Your task to perform on an android device: Search for seafood restaurants on Google Maps Image 0: 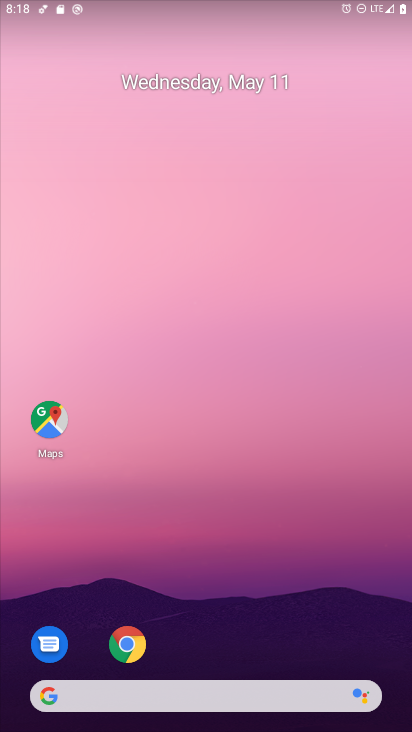
Step 0: click (53, 424)
Your task to perform on an android device: Search for seafood restaurants on Google Maps Image 1: 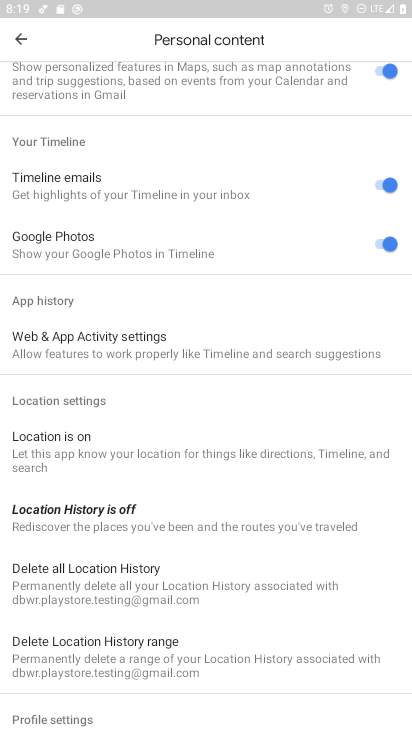
Step 1: click (24, 44)
Your task to perform on an android device: Search for seafood restaurants on Google Maps Image 2: 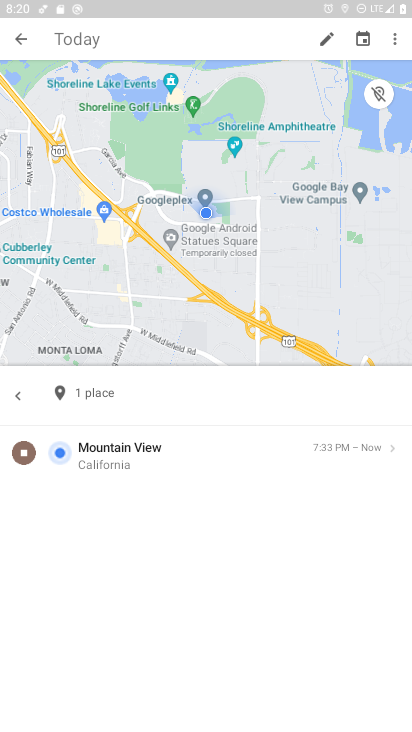
Step 2: click (19, 35)
Your task to perform on an android device: Search for seafood restaurants on Google Maps Image 3: 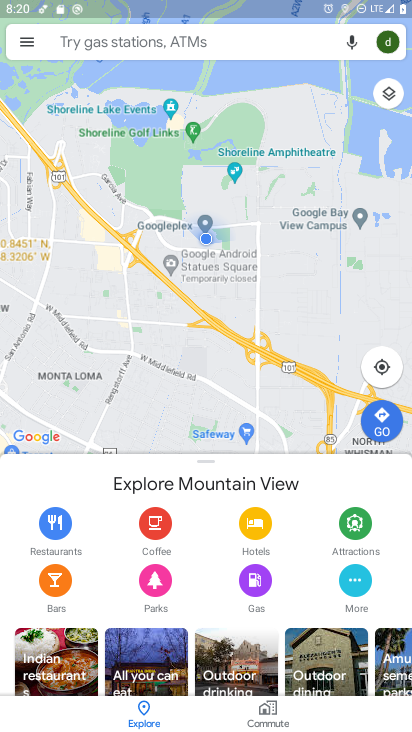
Step 3: click (93, 47)
Your task to perform on an android device: Search for seafood restaurants on Google Maps Image 4: 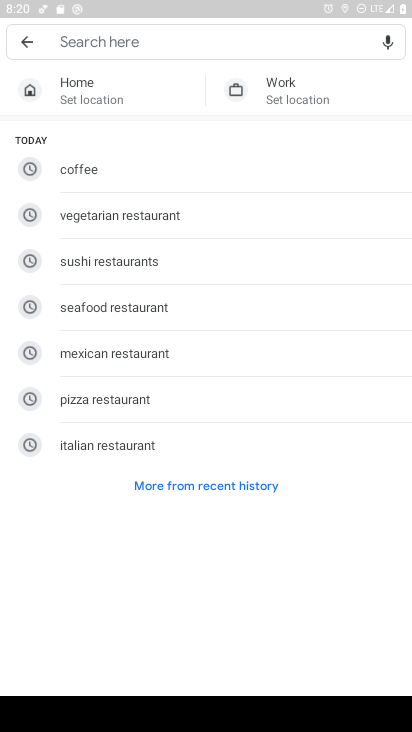
Step 4: type "seafood rest"
Your task to perform on an android device: Search for seafood restaurants on Google Maps Image 5: 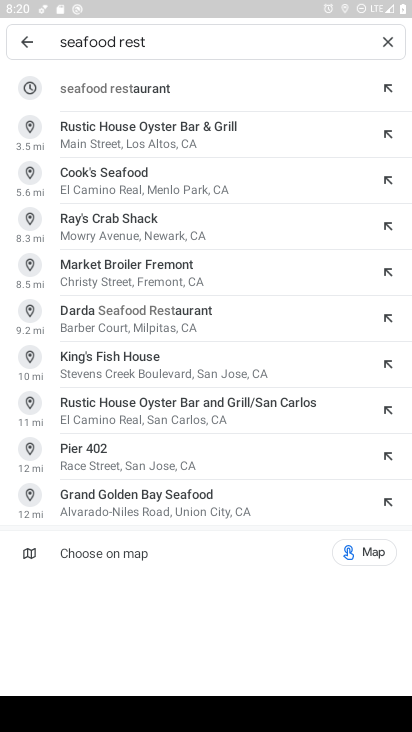
Step 5: click (122, 84)
Your task to perform on an android device: Search for seafood restaurants on Google Maps Image 6: 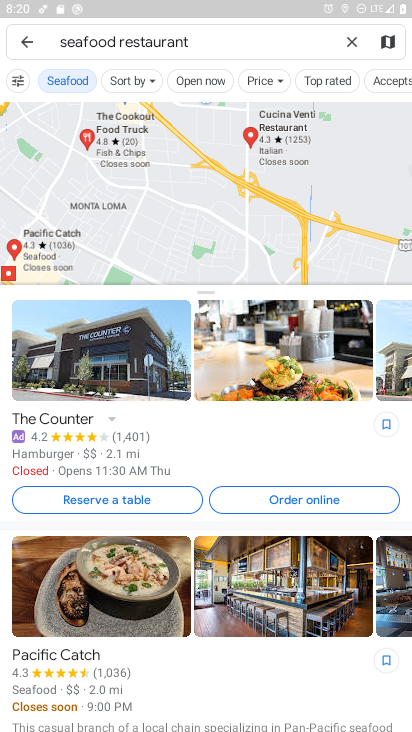
Step 6: task complete